Your task to perform on an android device: see sites visited before in the chrome app Image 0: 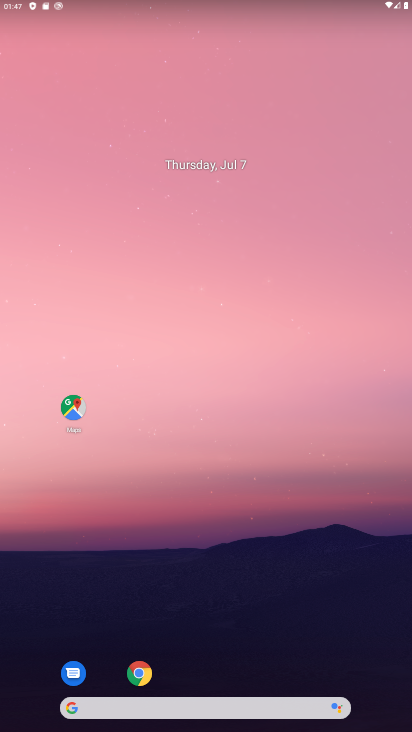
Step 0: click (149, 670)
Your task to perform on an android device: see sites visited before in the chrome app Image 1: 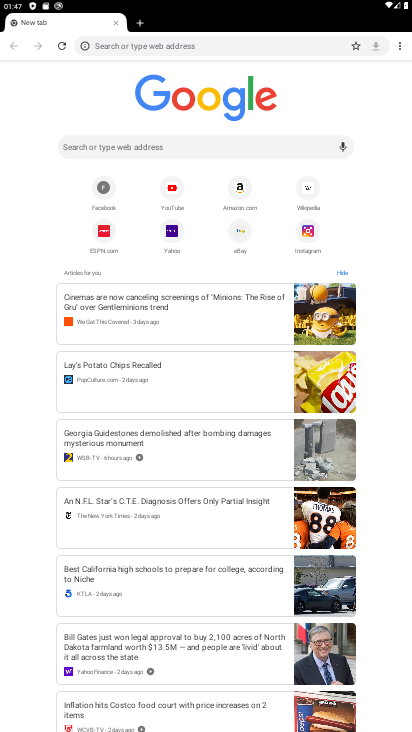
Step 1: click (398, 49)
Your task to perform on an android device: see sites visited before in the chrome app Image 2: 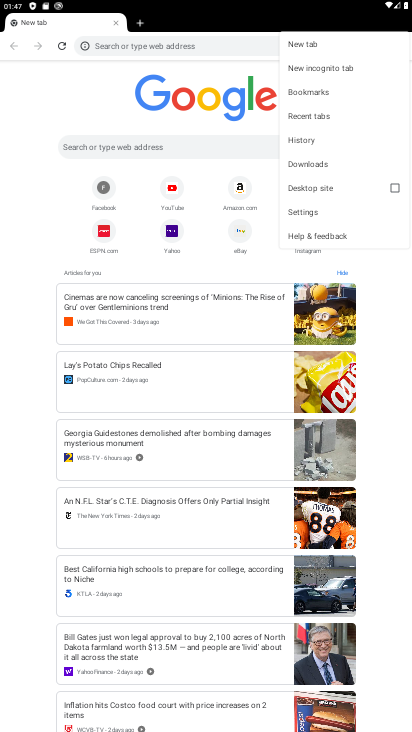
Step 2: click (334, 117)
Your task to perform on an android device: see sites visited before in the chrome app Image 3: 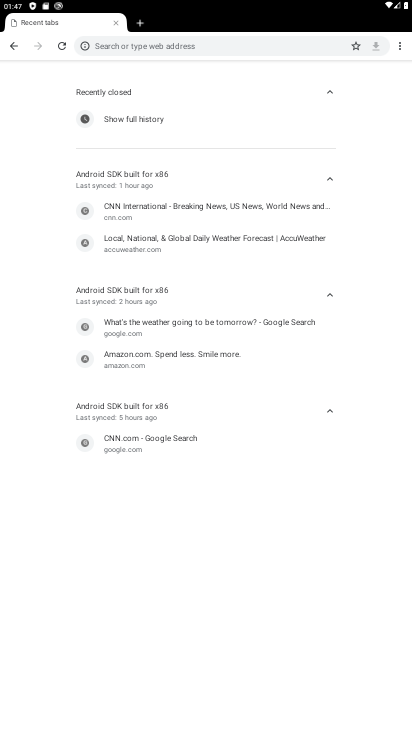
Step 3: task complete